Your task to perform on an android device: find photos in the google photos app Image 0: 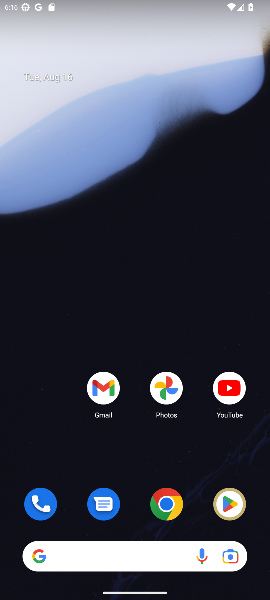
Step 0: click (164, 391)
Your task to perform on an android device: find photos in the google photos app Image 1: 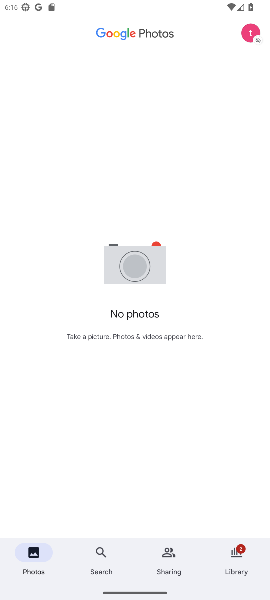
Step 1: task complete